Your task to perform on an android device: install app "Duolingo: language lessons" Image 0: 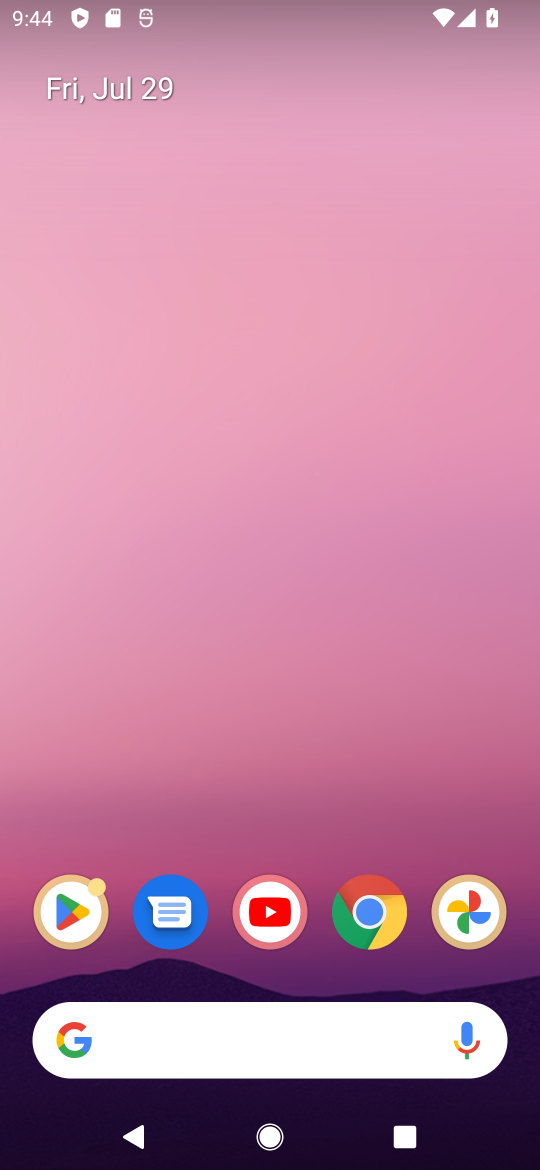
Step 0: click (81, 920)
Your task to perform on an android device: install app "Duolingo: language lessons" Image 1: 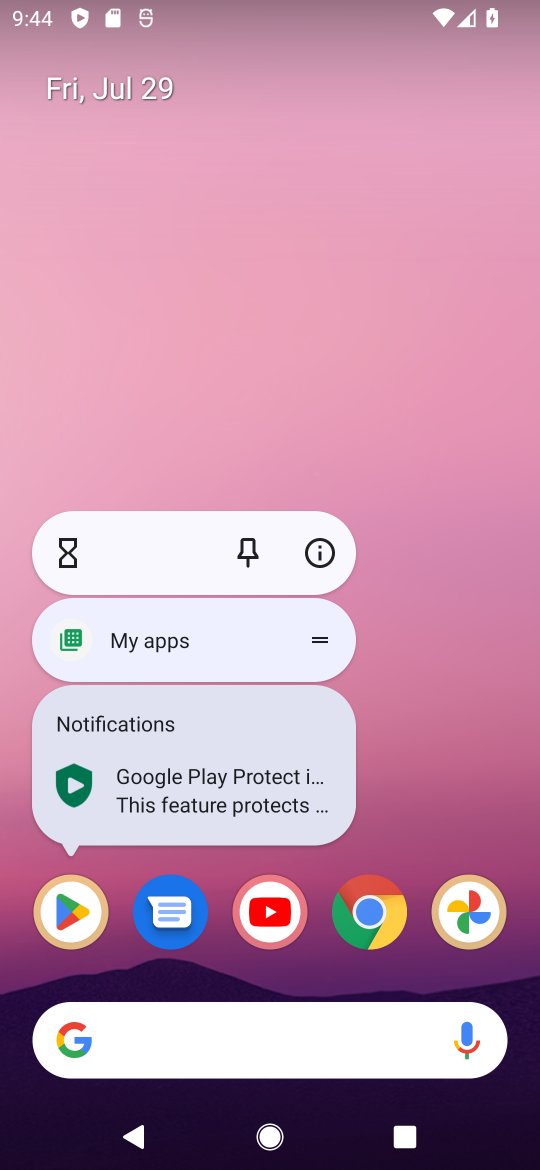
Step 1: click (98, 908)
Your task to perform on an android device: install app "Duolingo: language lessons" Image 2: 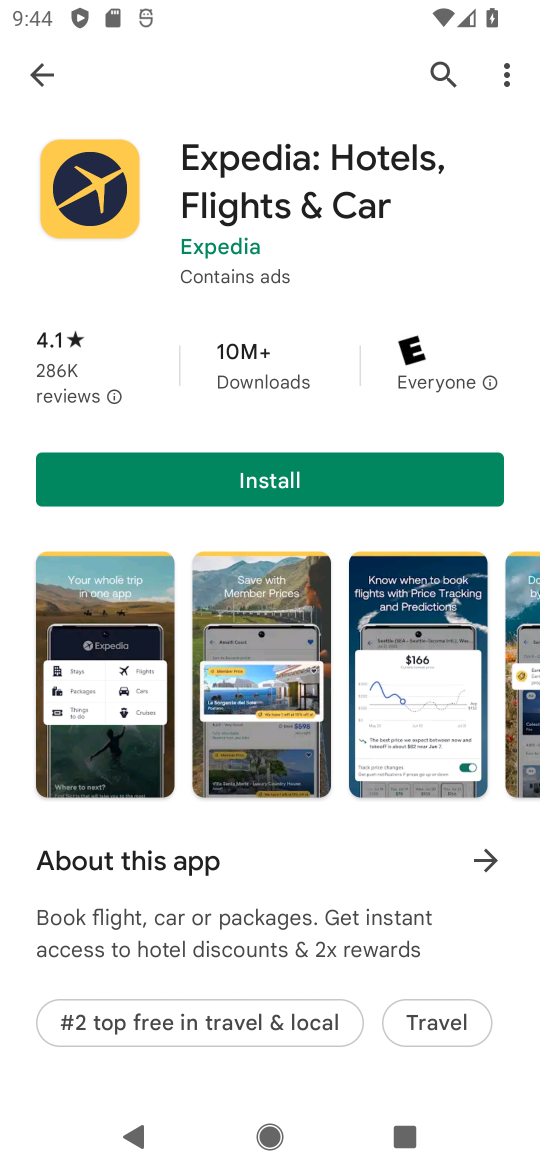
Step 2: click (13, 51)
Your task to perform on an android device: install app "Duolingo: language lessons" Image 3: 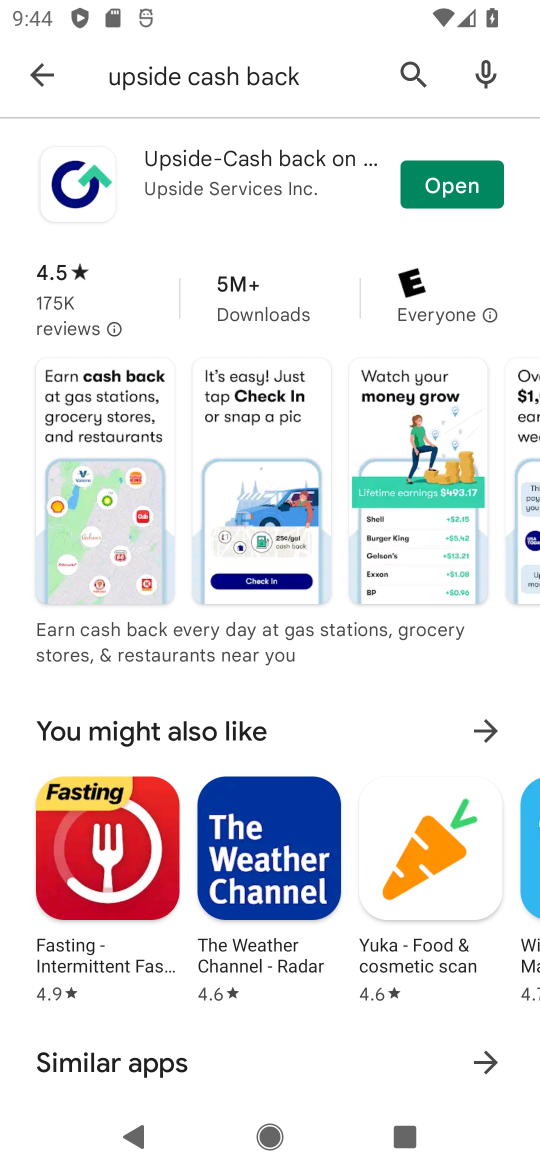
Step 3: click (402, 59)
Your task to perform on an android device: install app "Duolingo: language lessons" Image 4: 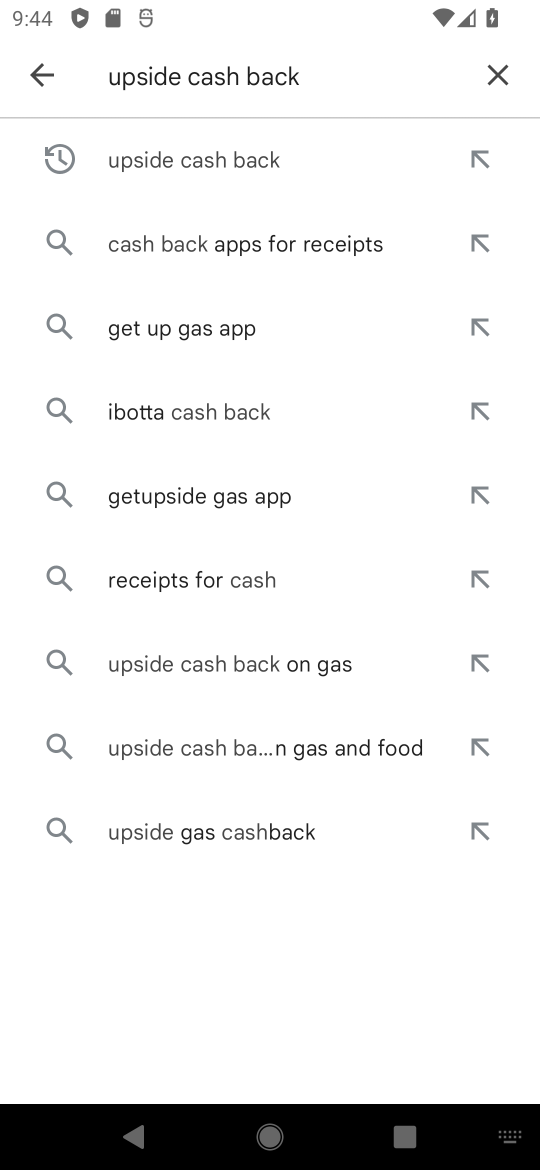
Step 4: click (513, 74)
Your task to perform on an android device: install app "Duolingo: language lessons" Image 5: 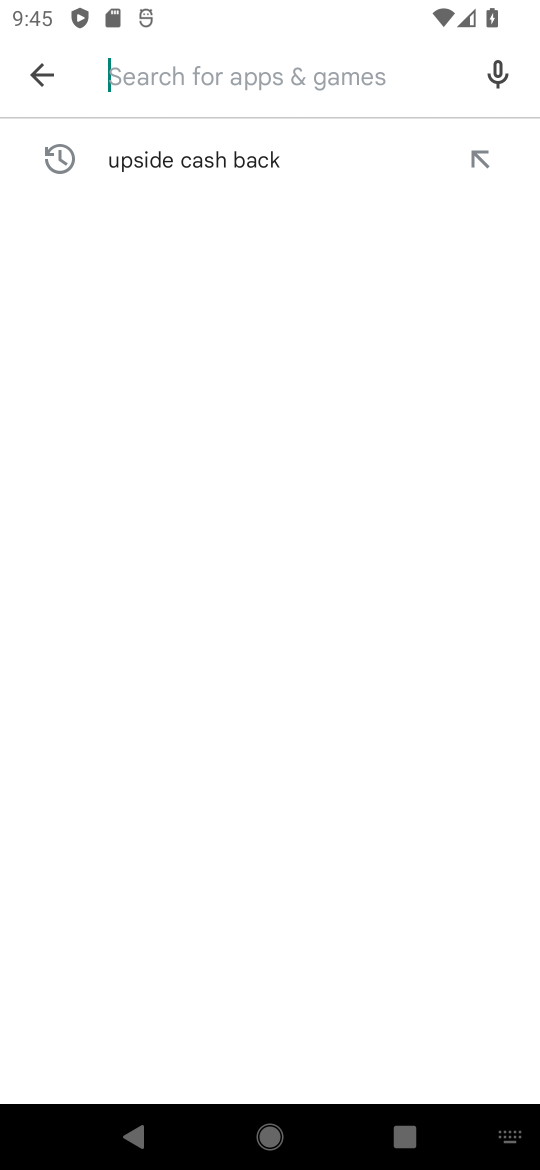
Step 5: click (248, 82)
Your task to perform on an android device: install app "Duolingo: language lessons" Image 6: 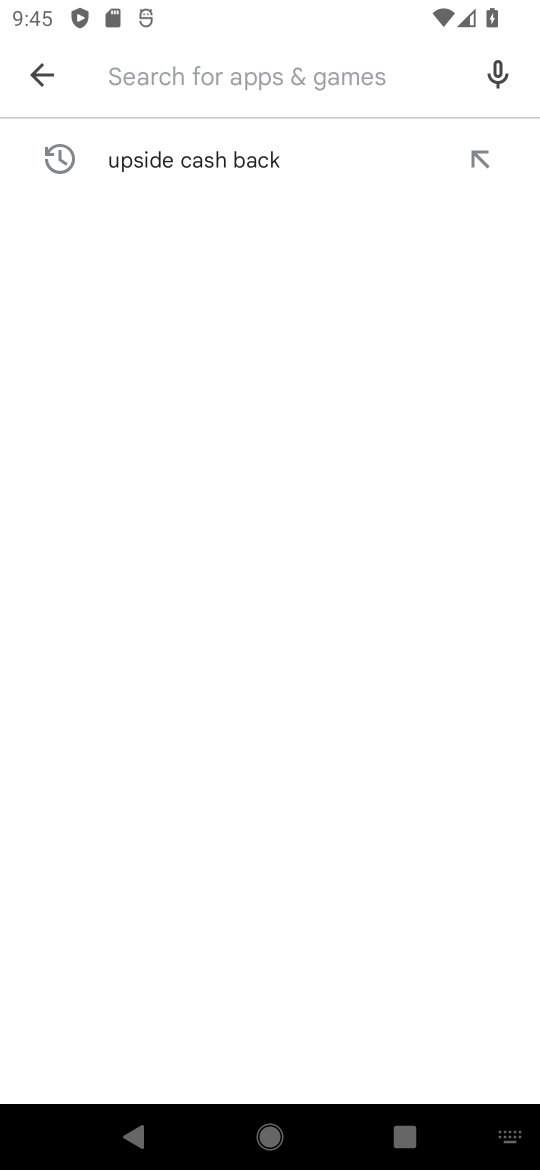
Step 6: type "duolingo"
Your task to perform on an android device: install app "Duolingo: language lessons" Image 7: 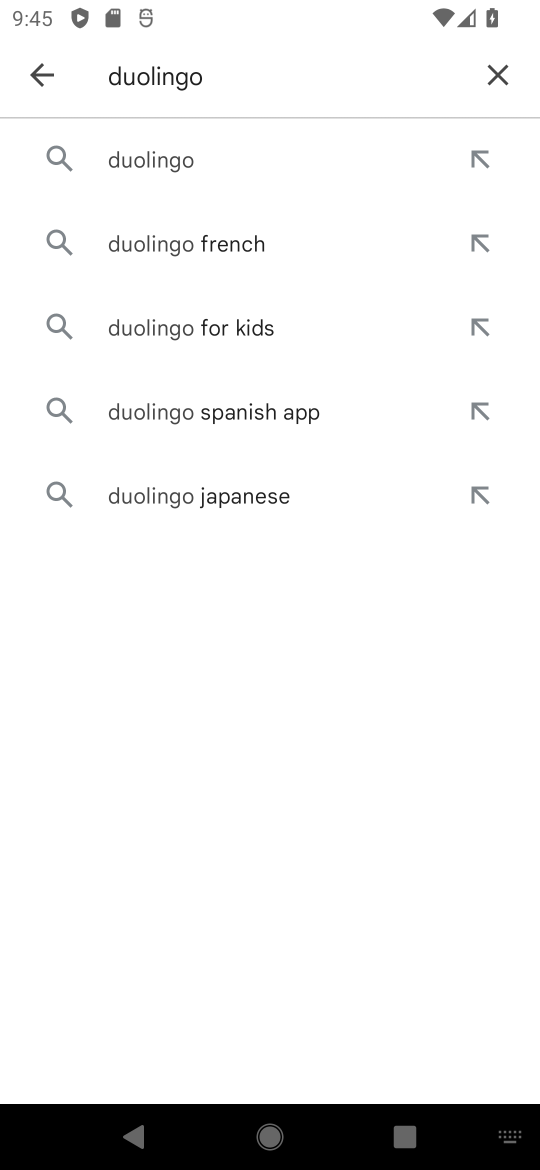
Step 7: click (194, 148)
Your task to perform on an android device: install app "Duolingo: language lessons" Image 8: 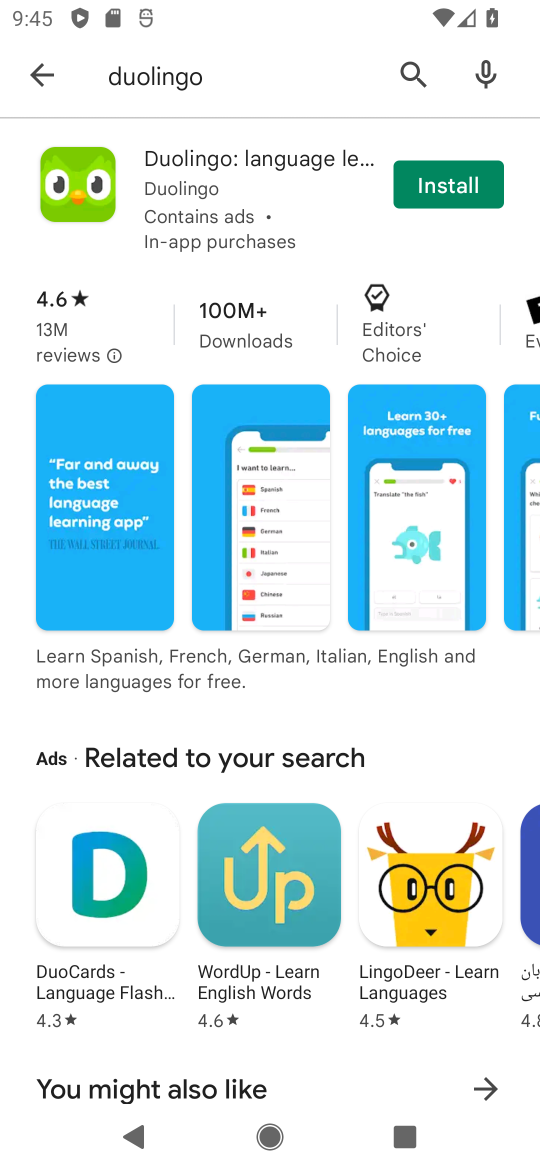
Step 8: click (470, 187)
Your task to perform on an android device: install app "Duolingo: language lessons" Image 9: 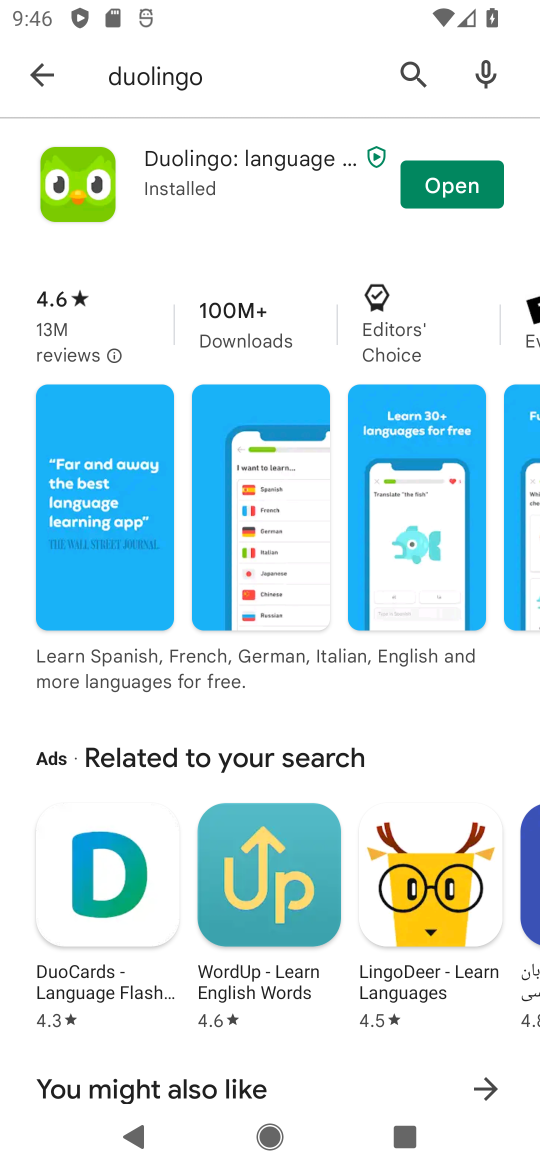
Step 9: task complete